Your task to perform on an android device: What's the weather? Image 0: 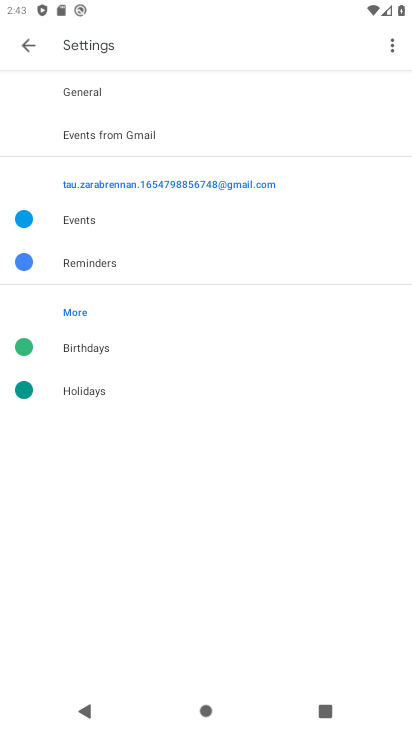
Step 0: press home button
Your task to perform on an android device: What's the weather? Image 1: 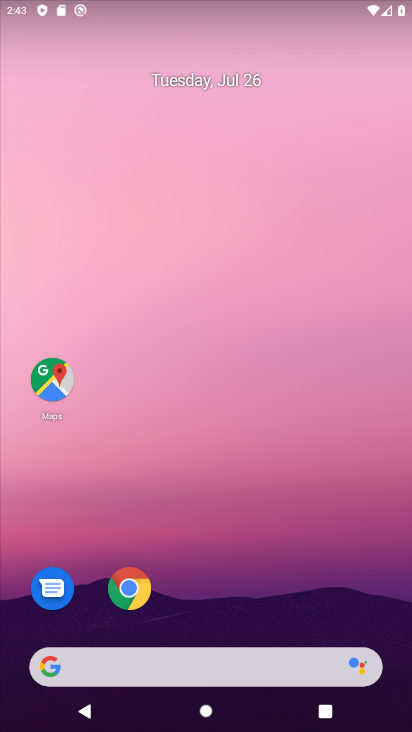
Step 1: drag from (268, 553) to (304, 178)
Your task to perform on an android device: What's the weather? Image 2: 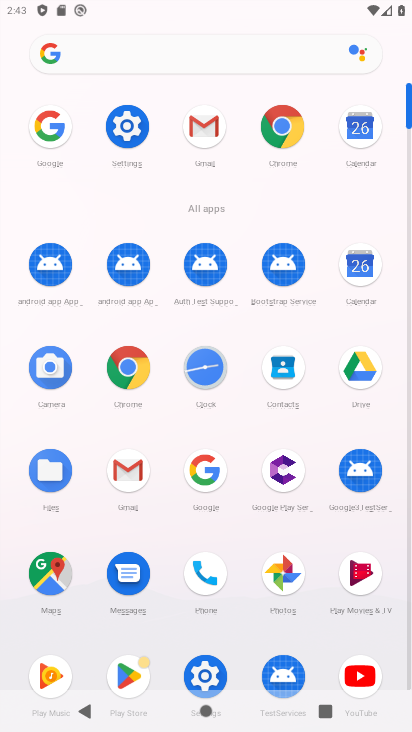
Step 2: click (201, 467)
Your task to perform on an android device: What's the weather? Image 3: 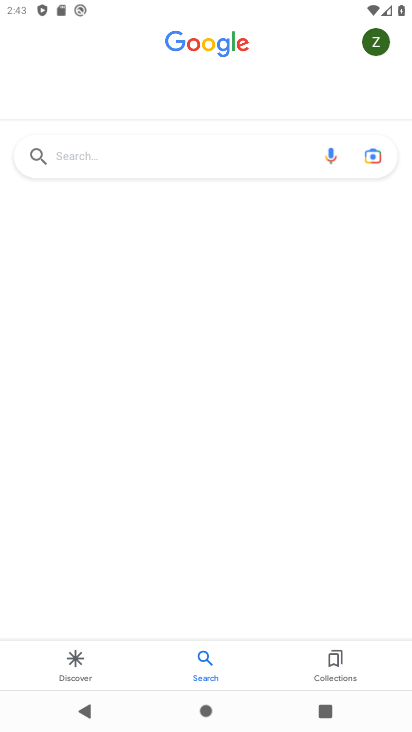
Step 3: click (213, 143)
Your task to perform on an android device: What's the weather? Image 4: 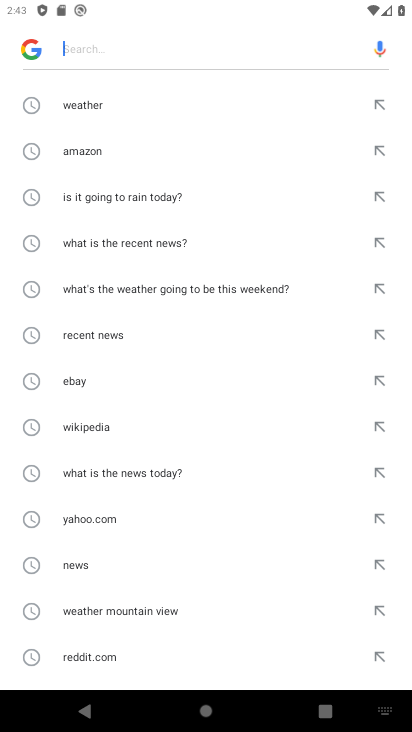
Step 4: click (65, 119)
Your task to perform on an android device: What's the weather? Image 5: 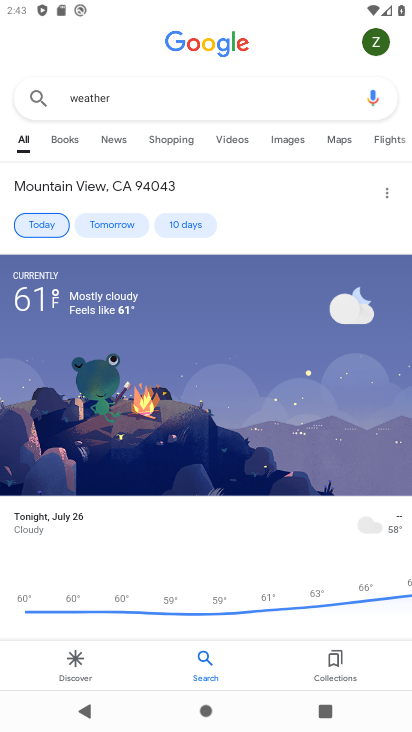
Step 5: task complete